Your task to perform on an android device: Search for sushi restaurants on Maps Image 0: 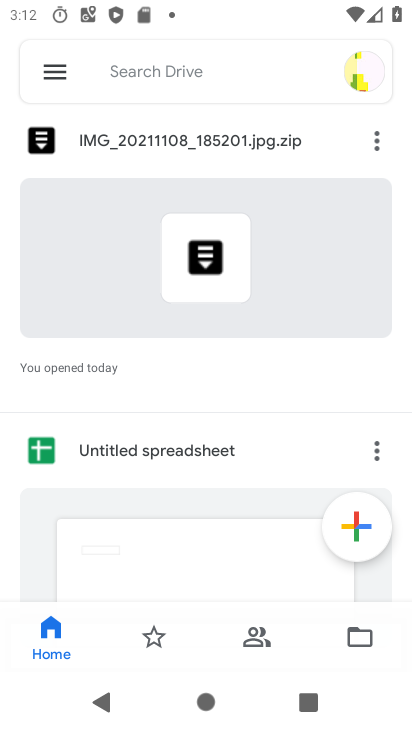
Step 0: press home button
Your task to perform on an android device: Search for sushi restaurants on Maps Image 1: 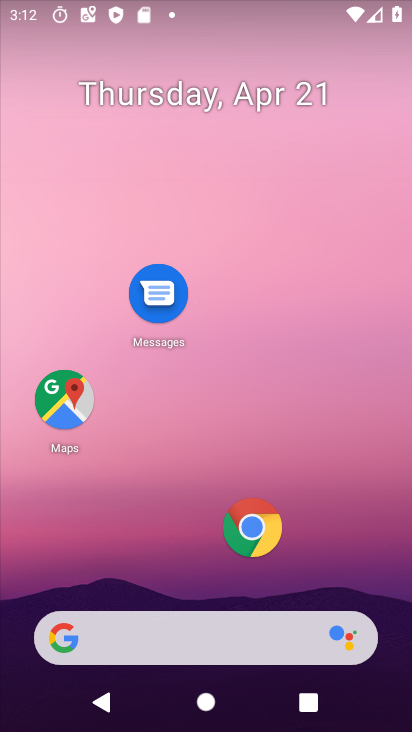
Step 1: click (63, 393)
Your task to perform on an android device: Search for sushi restaurants on Maps Image 2: 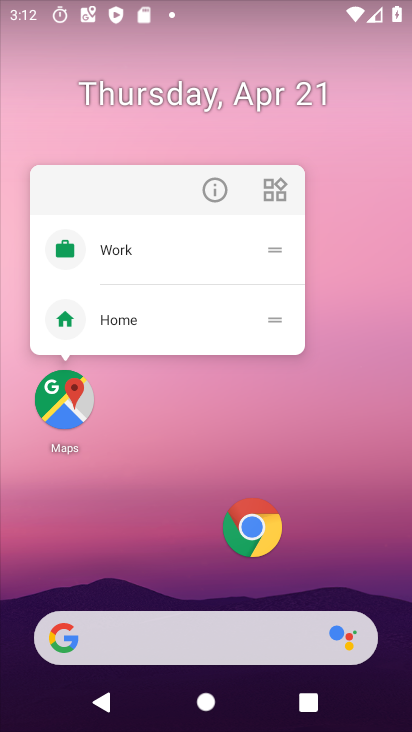
Step 2: click (63, 398)
Your task to perform on an android device: Search for sushi restaurants on Maps Image 3: 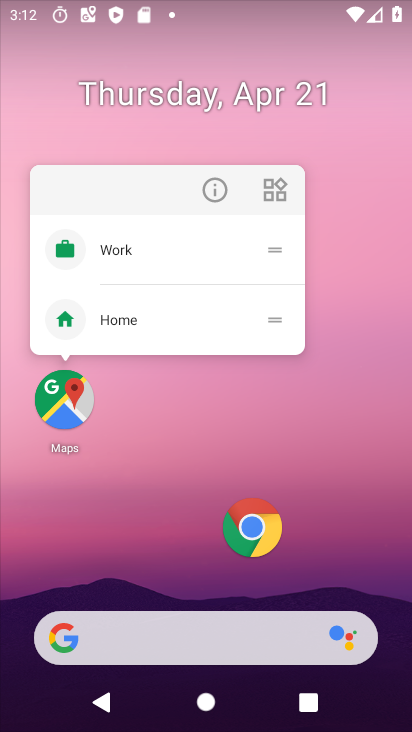
Step 3: click (61, 402)
Your task to perform on an android device: Search for sushi restaurants on Maps Image 4: 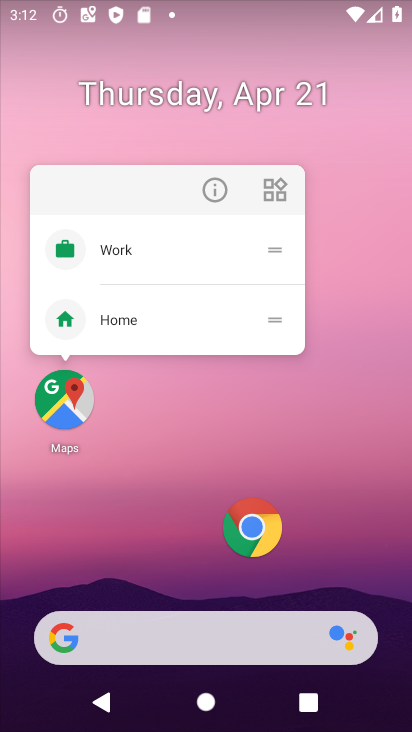
Step 4: click (57, 397)
Your task to perform on an android device: Search for sushi restaurants on Maps Image 5: 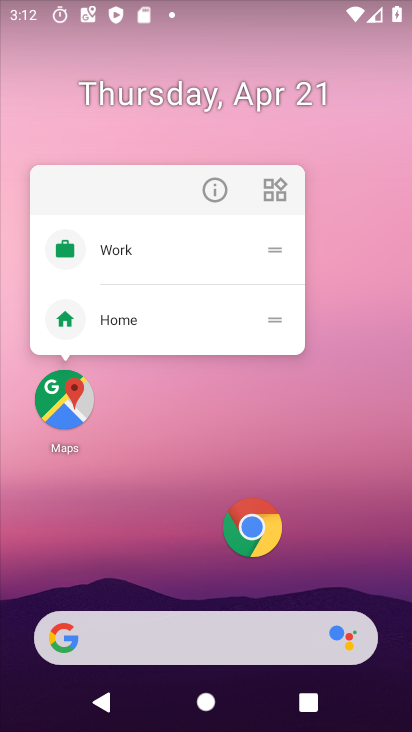
Step 5: click (57, 397)
Your task to perform on an android device: Search for sushi restaurants on Maps Image 6: 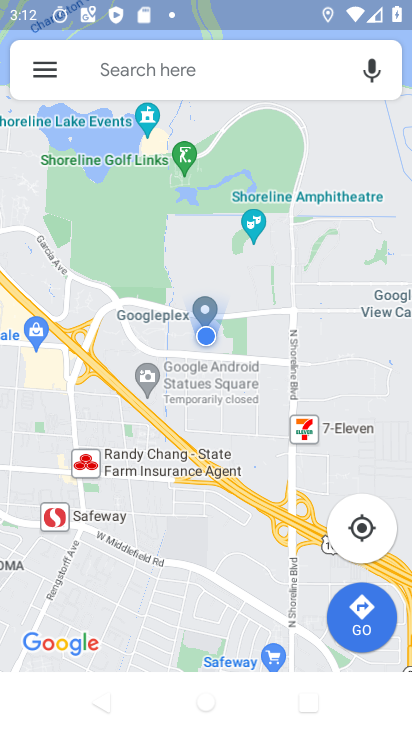
Step 6: click (128, 72)
Your task to perform on an android device: Search for sushi restaurants on Maps Image 7: 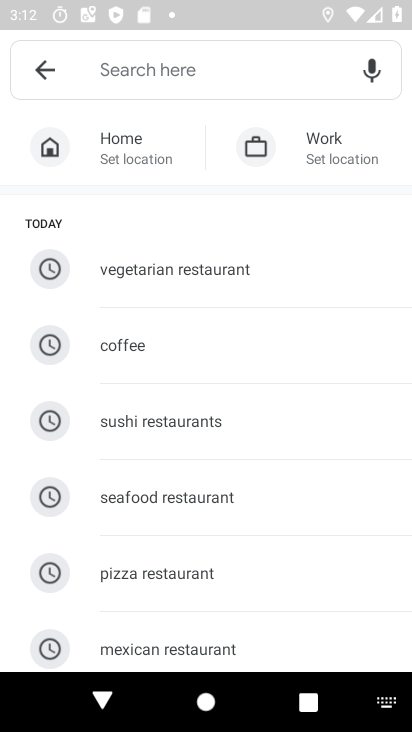
Step 7: click (200, 421)
Your task to perform on an android device: Search for sushi restaurants on Maps Image 8: 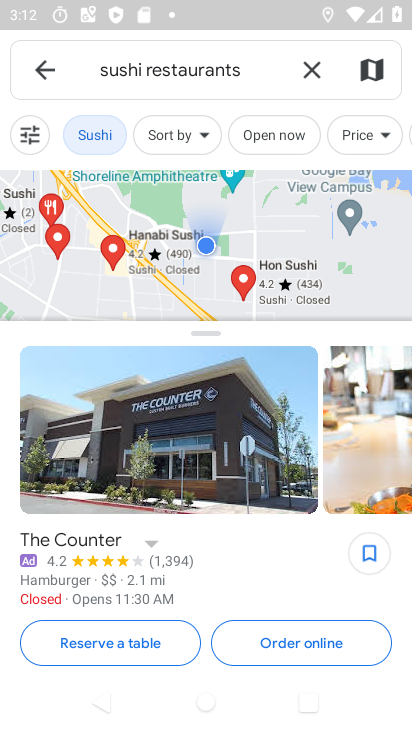
Step 8: task complete